Your task to perform on an android device: Open eBay Image 0: 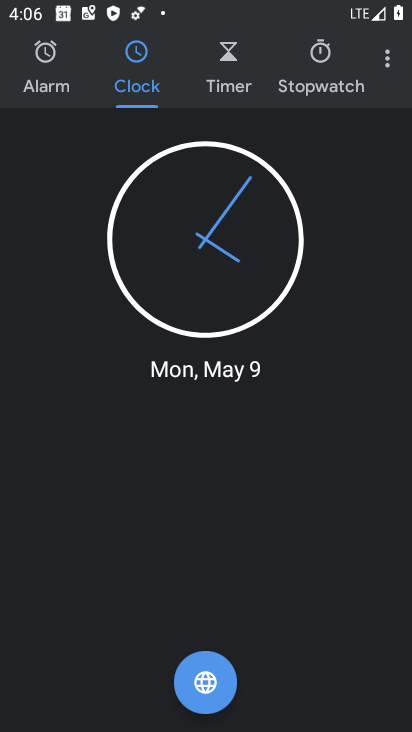
Step 0: press home button
Your task to perform on an android device: Open eBay Image 1: 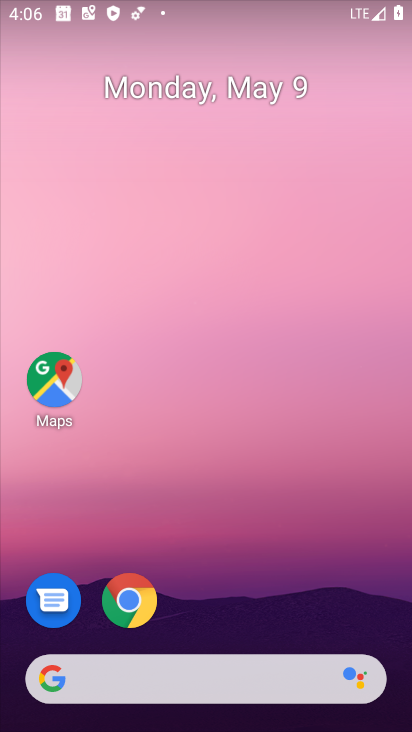
Step 1: drag from (326, 595) to (297, 15)
Your task to perform on an android device: Open eBay Image 2: 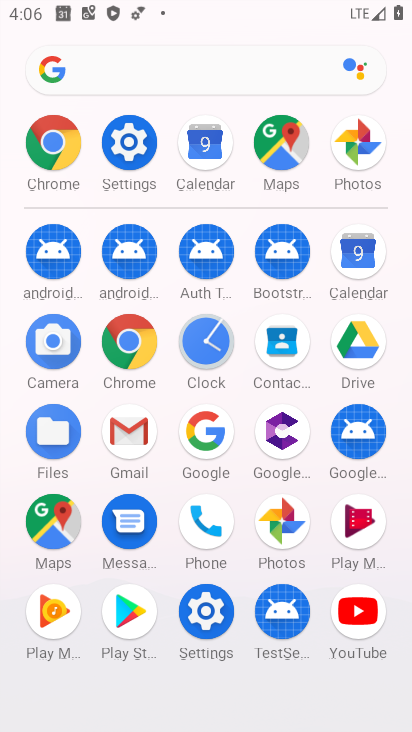
Step 2: click (132, 338)
Your task to perform on an android device: Open eBay Image 3: 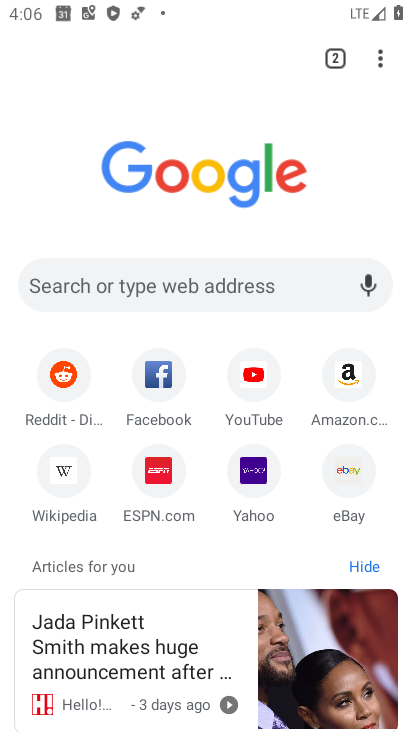
Step 3: click (218, 298)
Your task to perform on an android device: Open eBay Image 4: 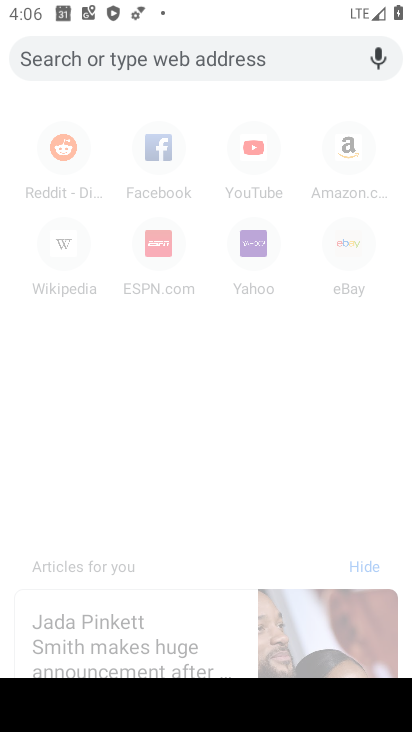
Step 4: type "ebay"
Your task to perform on an android device: Open eBay Image 5: 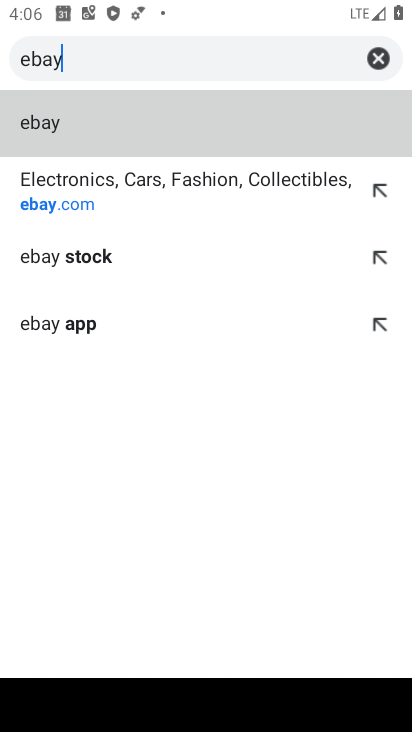
Step 5: click (198, 192)
Your task to perform on an android device: Open eBay Image 6: 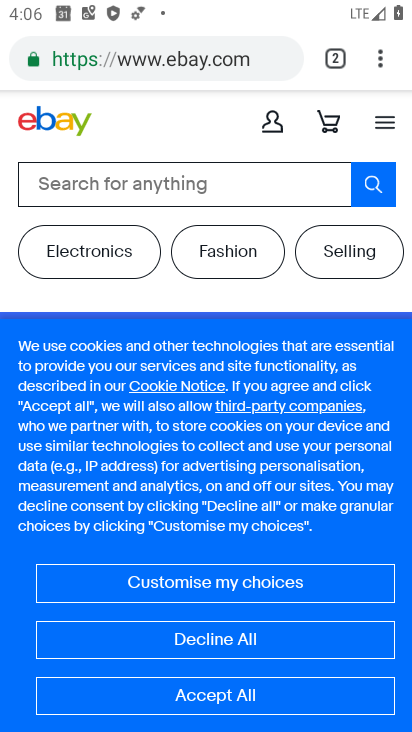
Step 6: task complete